Your task to perform on an android device: Go to Reddit.com Image 0: 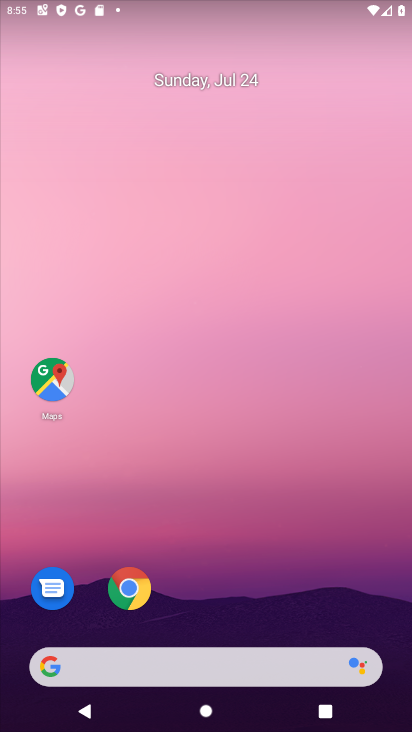
Step 0: click (139, 599)
Your task to perform on an android device: Go to Reddit.com Image 1: 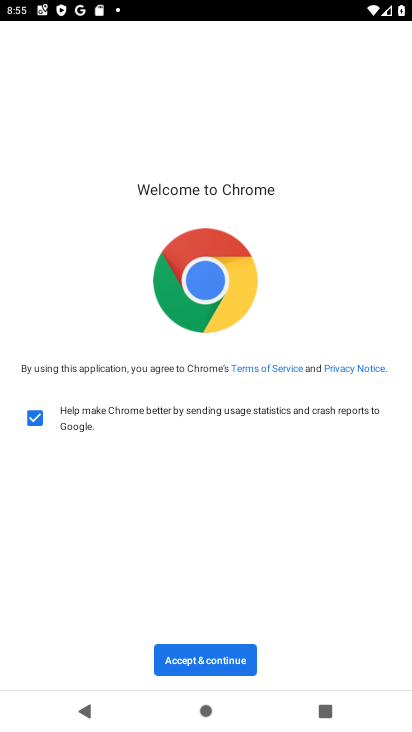
Step 1: click (242, 652)
Your task to perform on an android device: Go to Reddit.com Image 2: 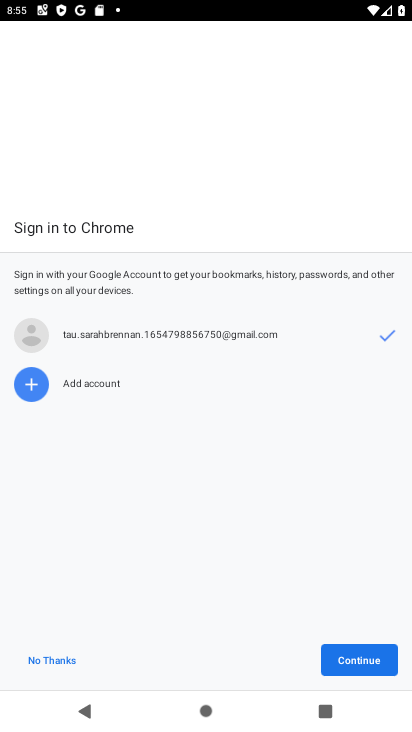
Step 2: click (333, 663)
Your task to perform on an android device: Go to Reddit.com Image 3: 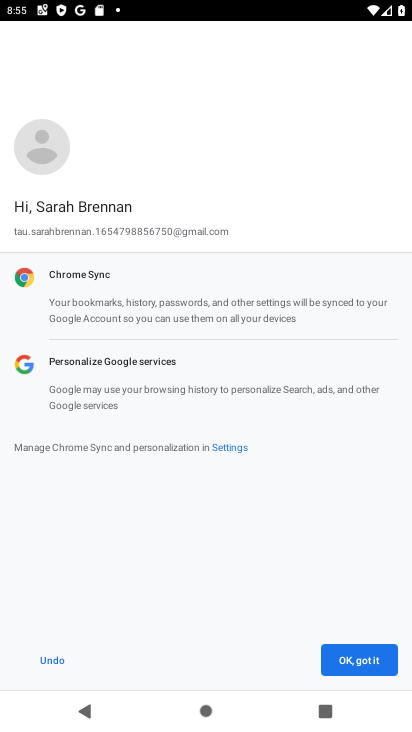
Step 3: click (333, 663)
Your task to perform on an android device: Go to Reddit.com Image 4: 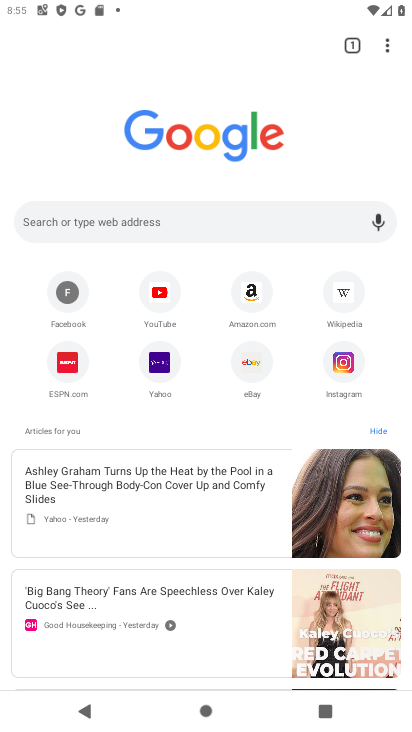
Step 4: click (236, 223)
Your task to perform on an android device: Go to Reddit.com Image 5: 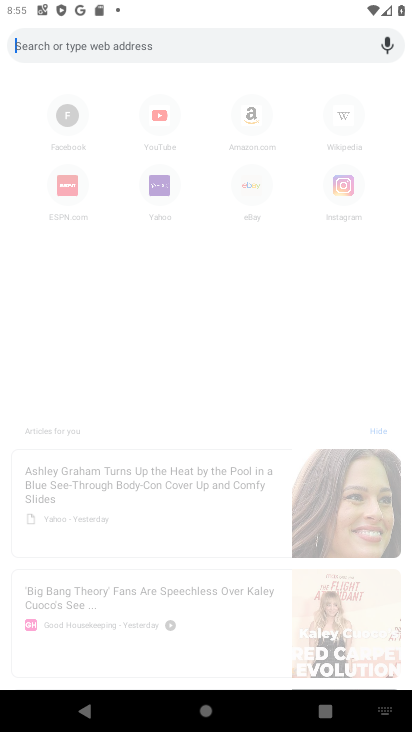
Step 5: type "reddit.com"
Your task to perform on an android device: Go to Reddit.com Image 6: 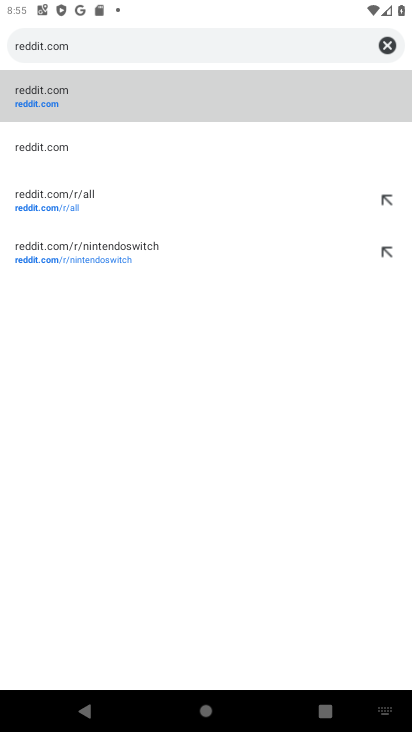
Step 6: click (101, 116)
Your task to perform on an android device: Go to Reddit.com Image 7: 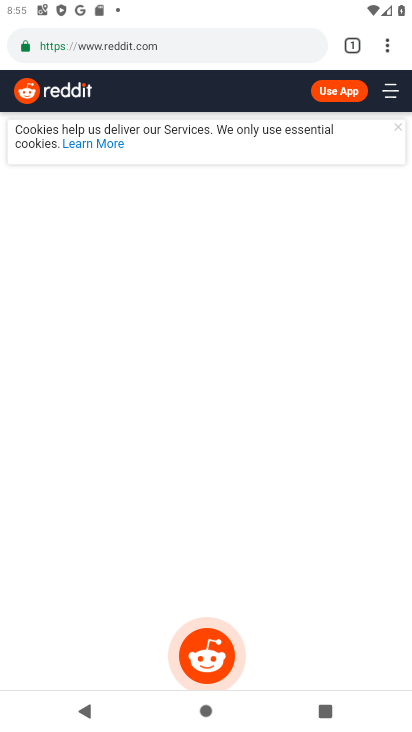
Step 7: task complete